Your task to perform on an android device: choose inbox layout in the gmail app Image 0: 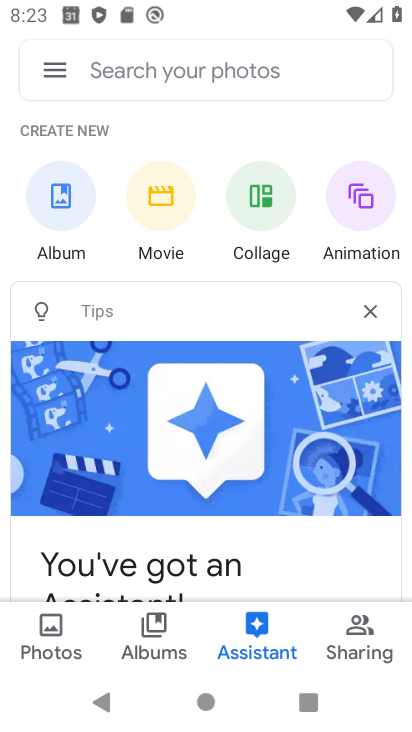
Step 0: press home button
Your task to perform on an android device: choose inbox layout in the gmail app Image 1: 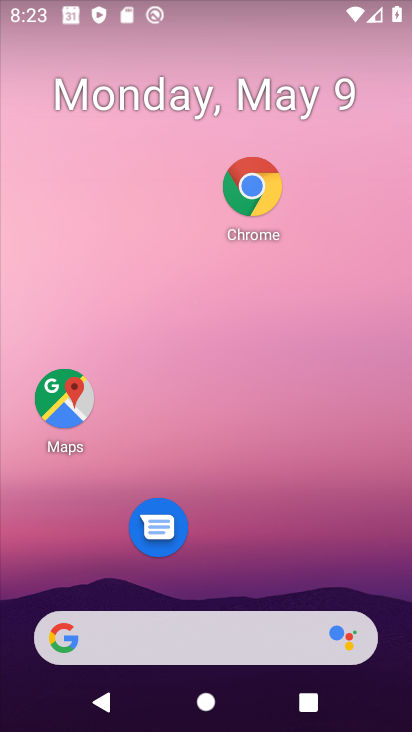
Step 1: drag from (210, 582) to (212, 36)
Your task to perform on an android device: choose inbox layout in the gmail app Image 2: 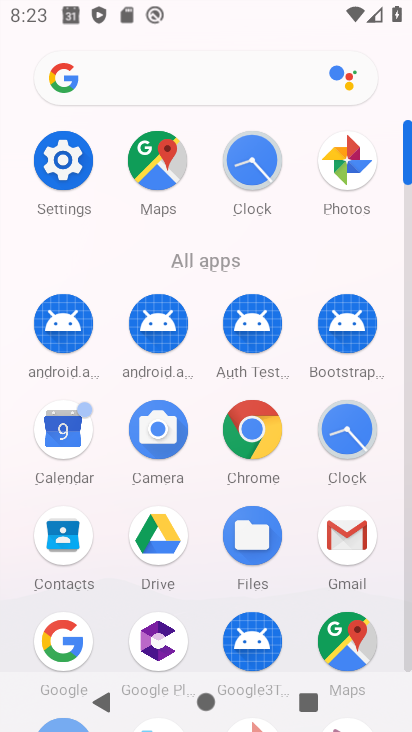
Step 2: click (348, 526)
Your task to perform on an android device: choose inbox layout in the gmail app Image 3: 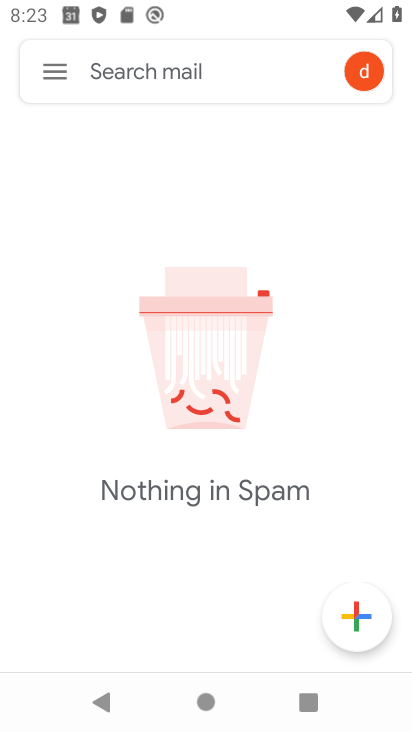
Step 3: click (46, 69)
Your task to perform on an android device: choose inbox layout in the gmail app Image 4: 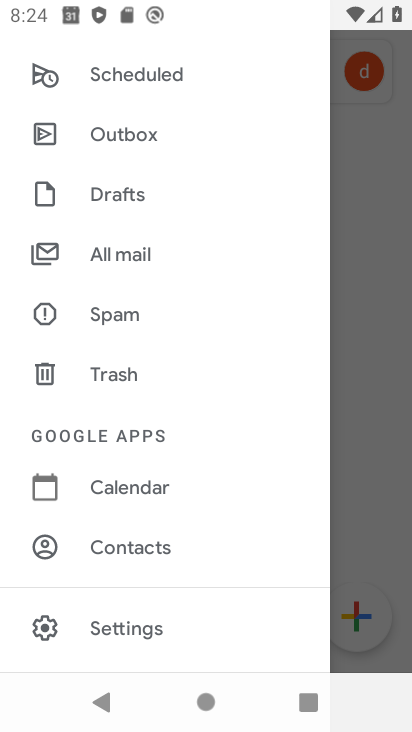
Step 4: click (183, 622)
Your task to perform on an android device: choose inbox layout in the gmail app Image 5: 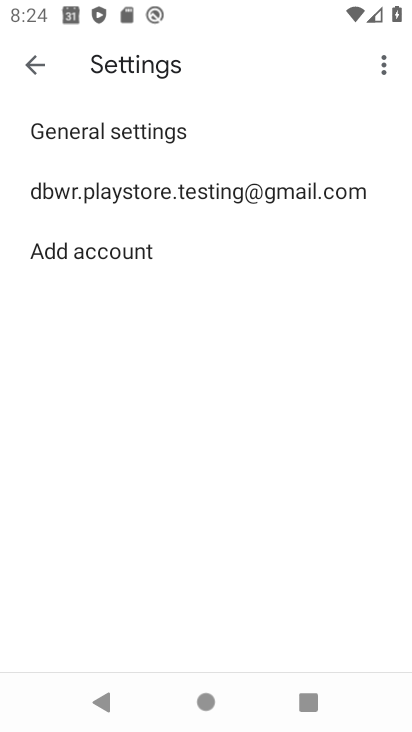
Step 5: click (251, 182)
Your task to perform on an android device: choose inbox layout in the gmail app Image 6: 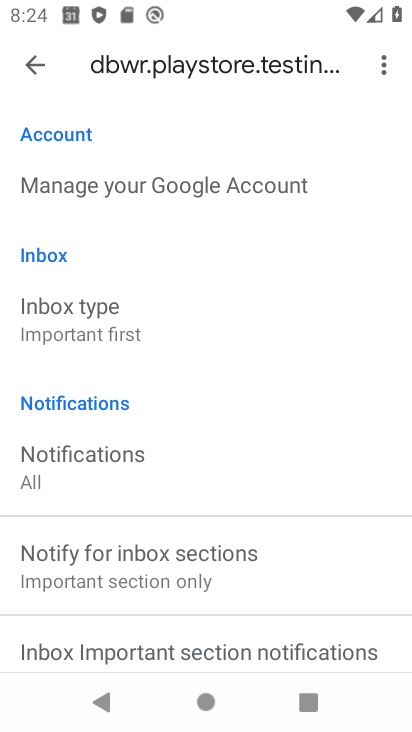
Step 6: click (142, 310)
Your task to perform on an android device: choose inbox layout in the gmail app Image 7: 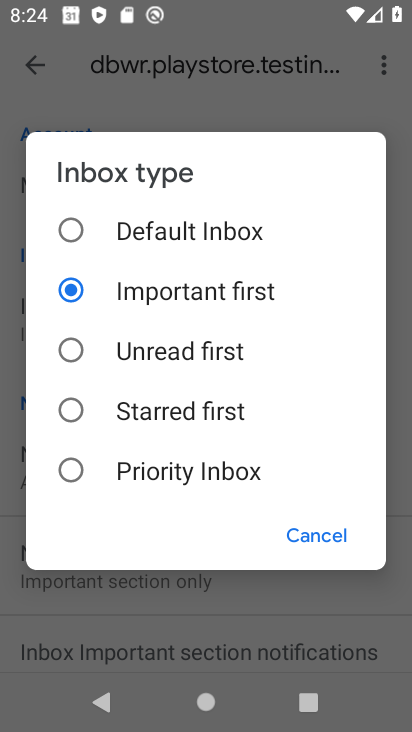
Step 7: click (71, 232)
Your task to perform on an android device: choose inbox layout in the gmail app Image 8: 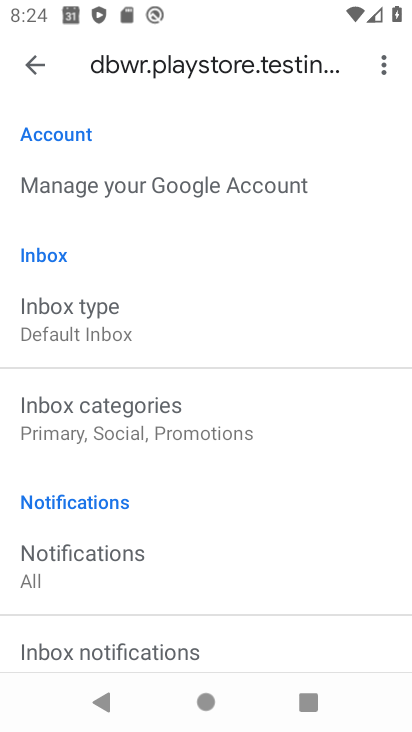
Step 8: task complete